Your task to perform on an android device: open app "Google Translate" (install if not already installed) Image 0: 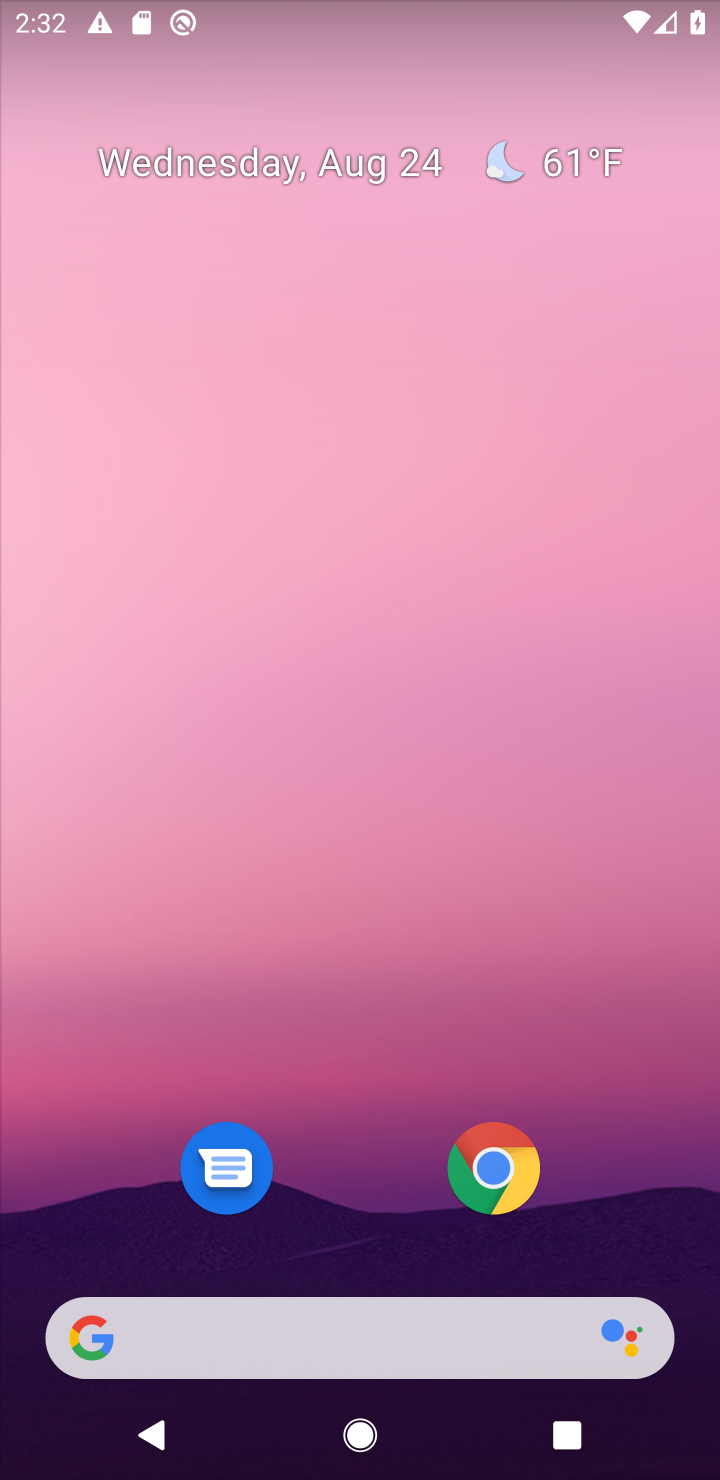
Step 0: drag from (697, 1224) to (691, 395)
Your task to perform on an android device: open app "Google Translate" (install if not already installed) Image 1: 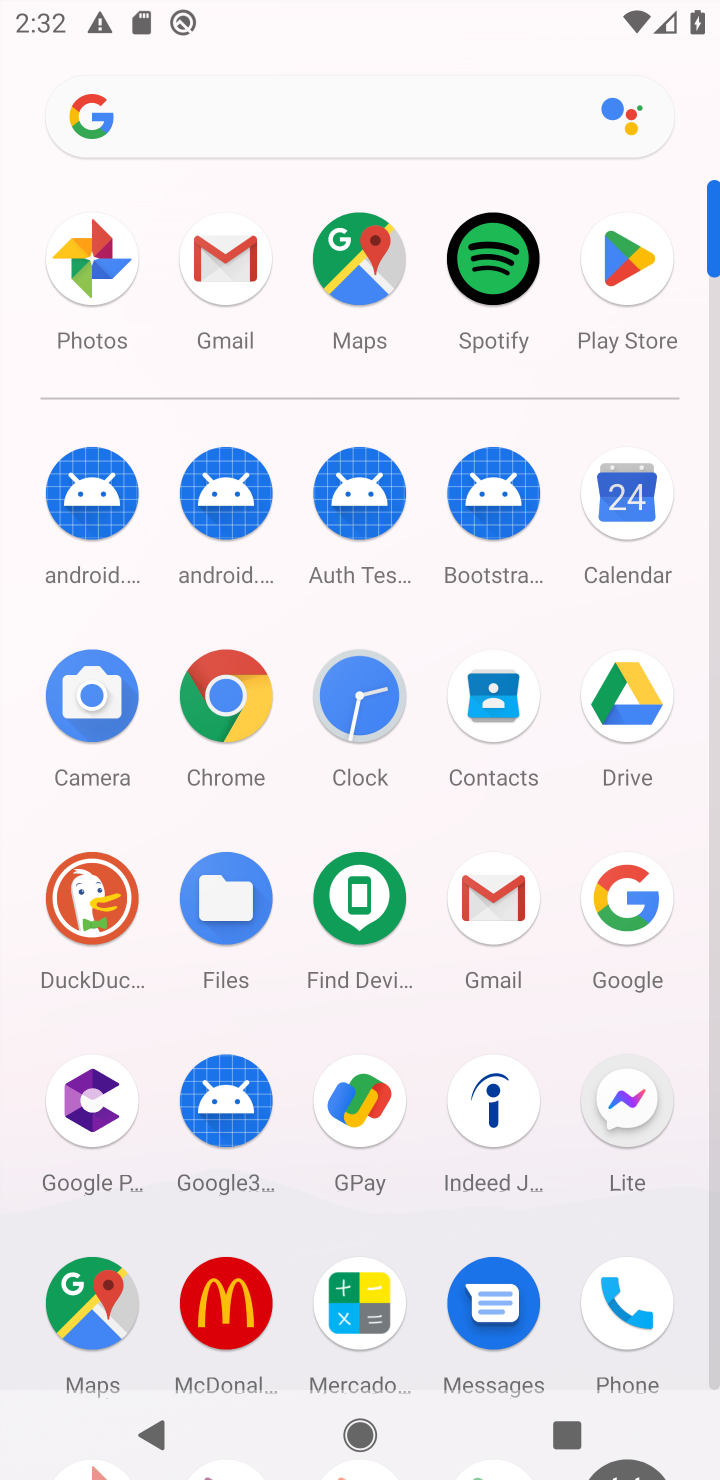
Step 1: click (715, 1354)
Your task to perform on an android device: open app "Google Translate" (install if not already installed) Image 2: 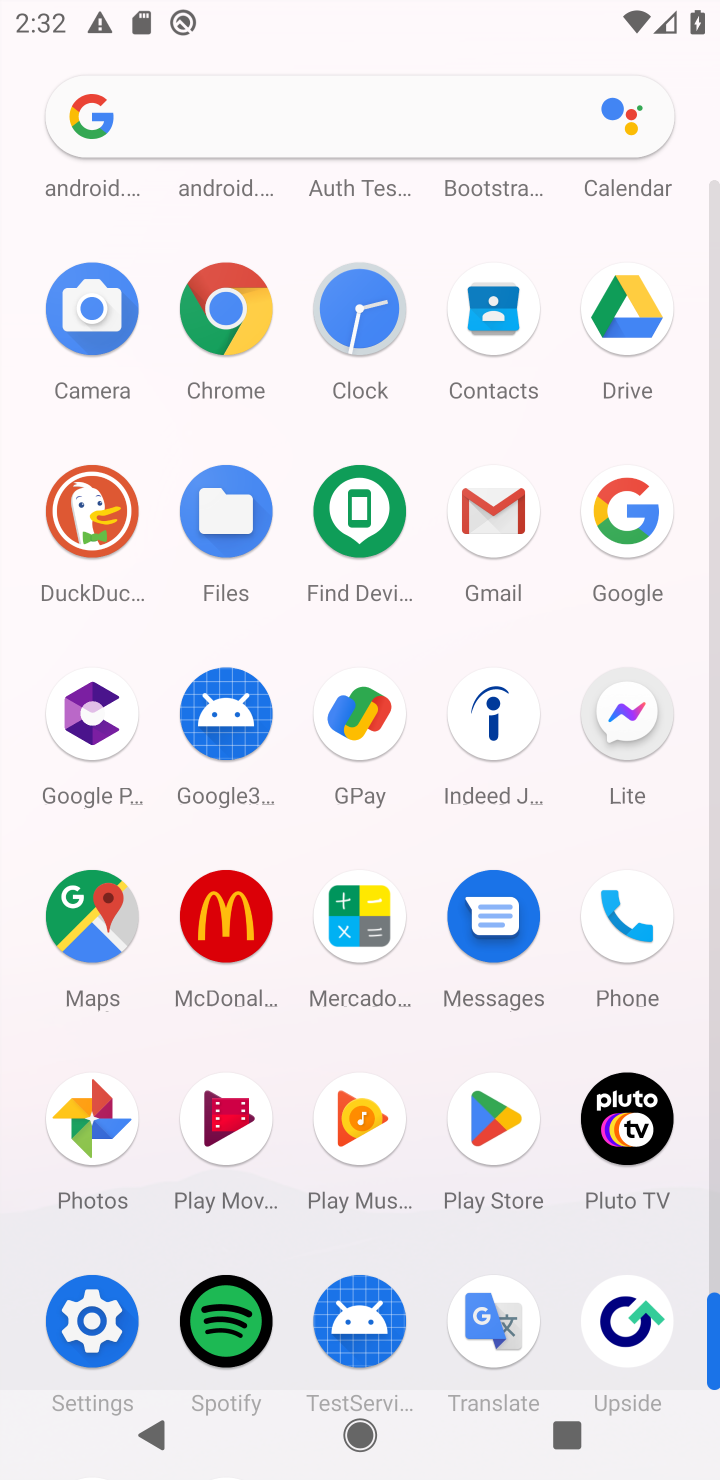
Step 2: click (498, 1119)
Your task to perform on an android device: open app "Google Translate" (install if not already installed) Image 3: 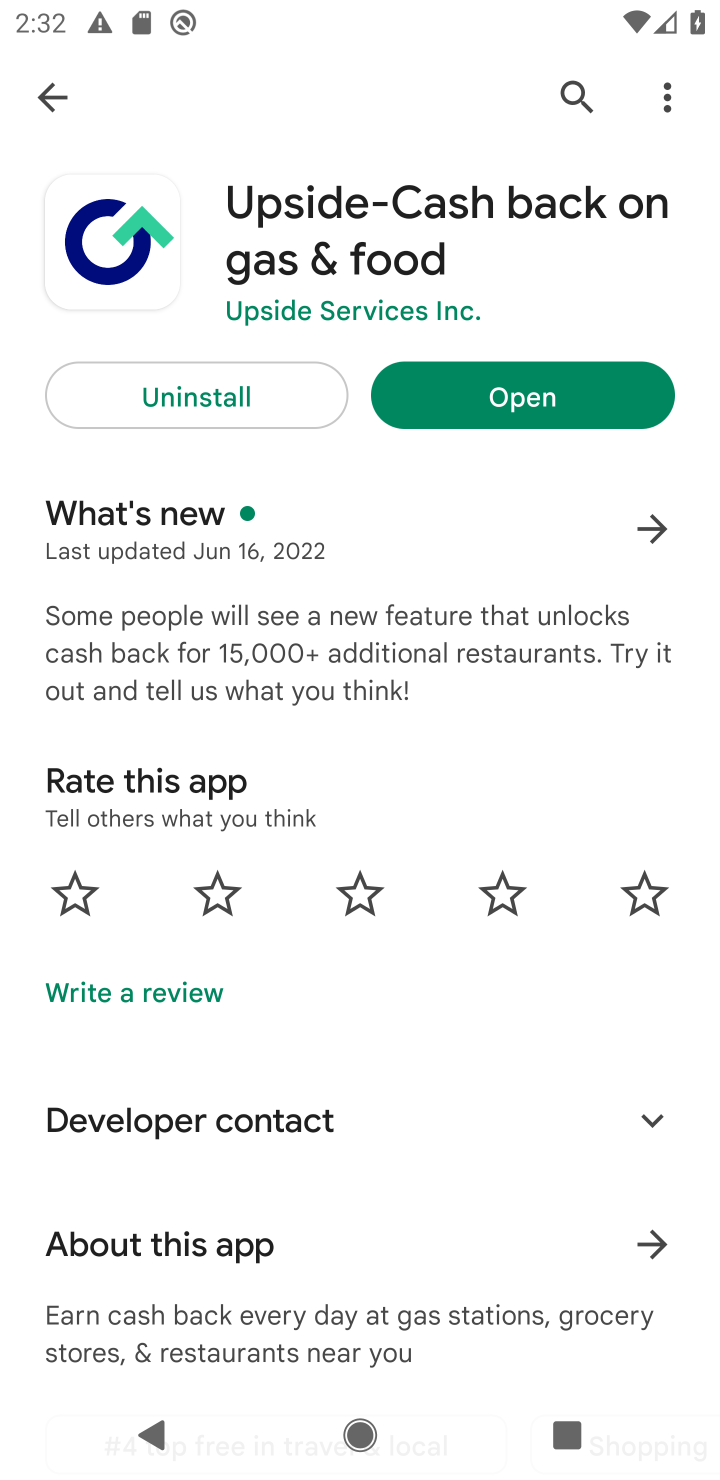
Step 3: click (569, 92)
Your task to perform on an android device: open app "Google Translate" (install if not already installed) Image 4: 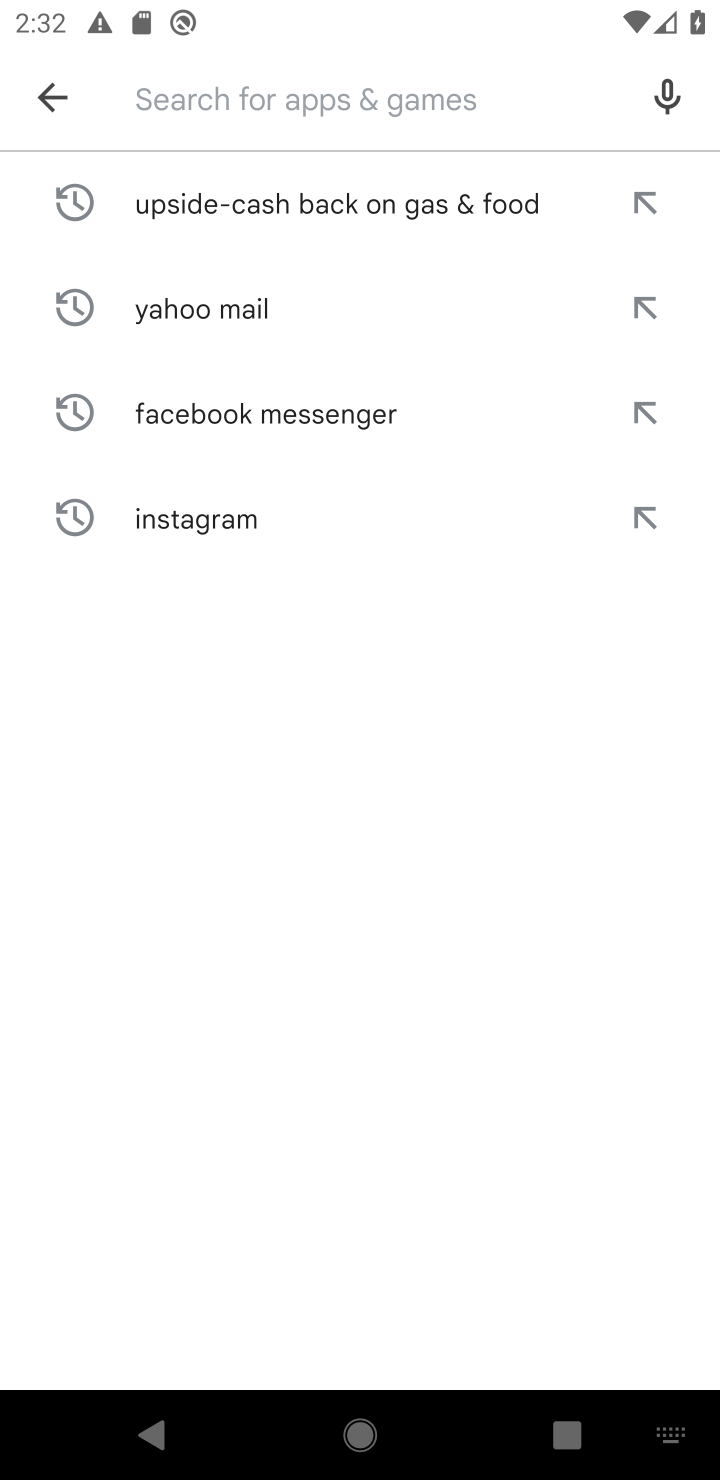
Step 4: type "Google Translate"
Your task to perform on an android device: open app "Google Translate" (install if not already installed) Image 5: 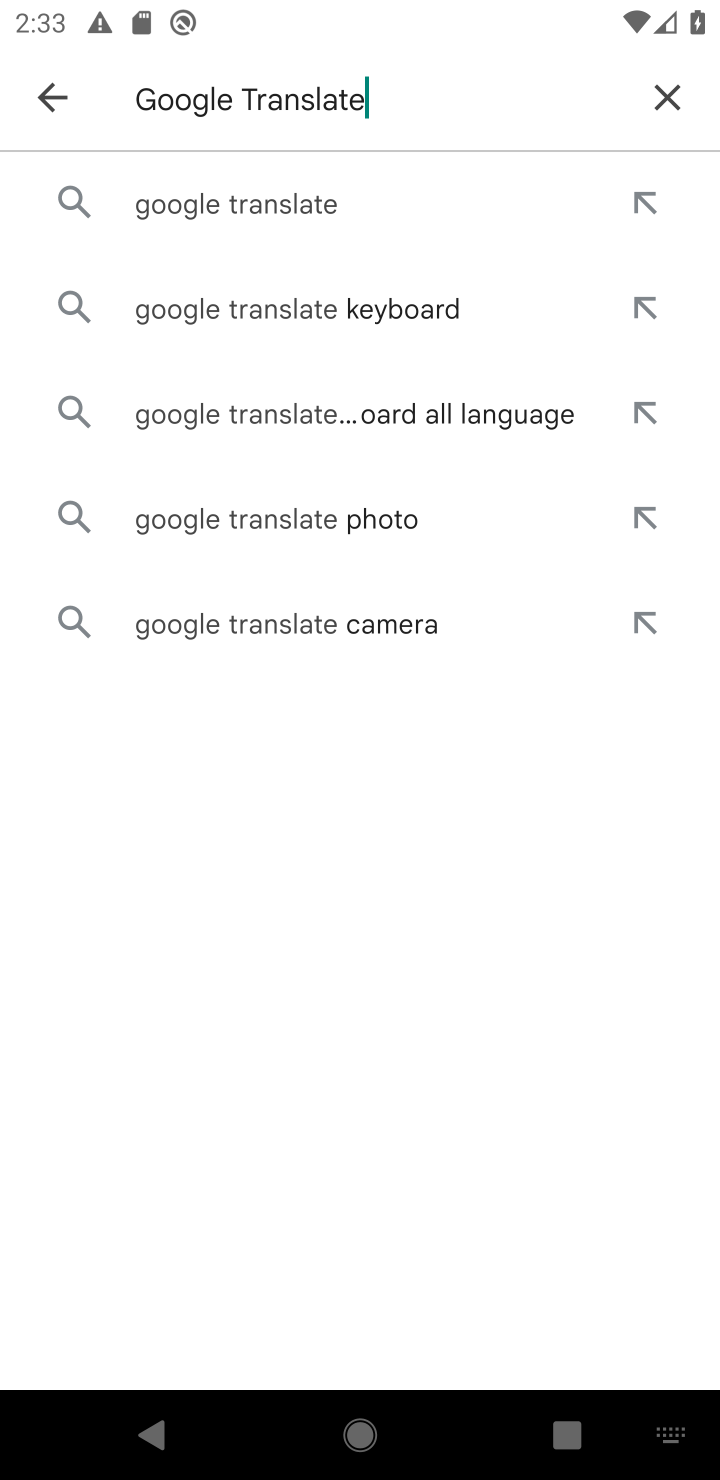
Step 5: click (231, 218)
Your task to perform on an android device: open app "Google Translate" (install if not already installed) Image 6: 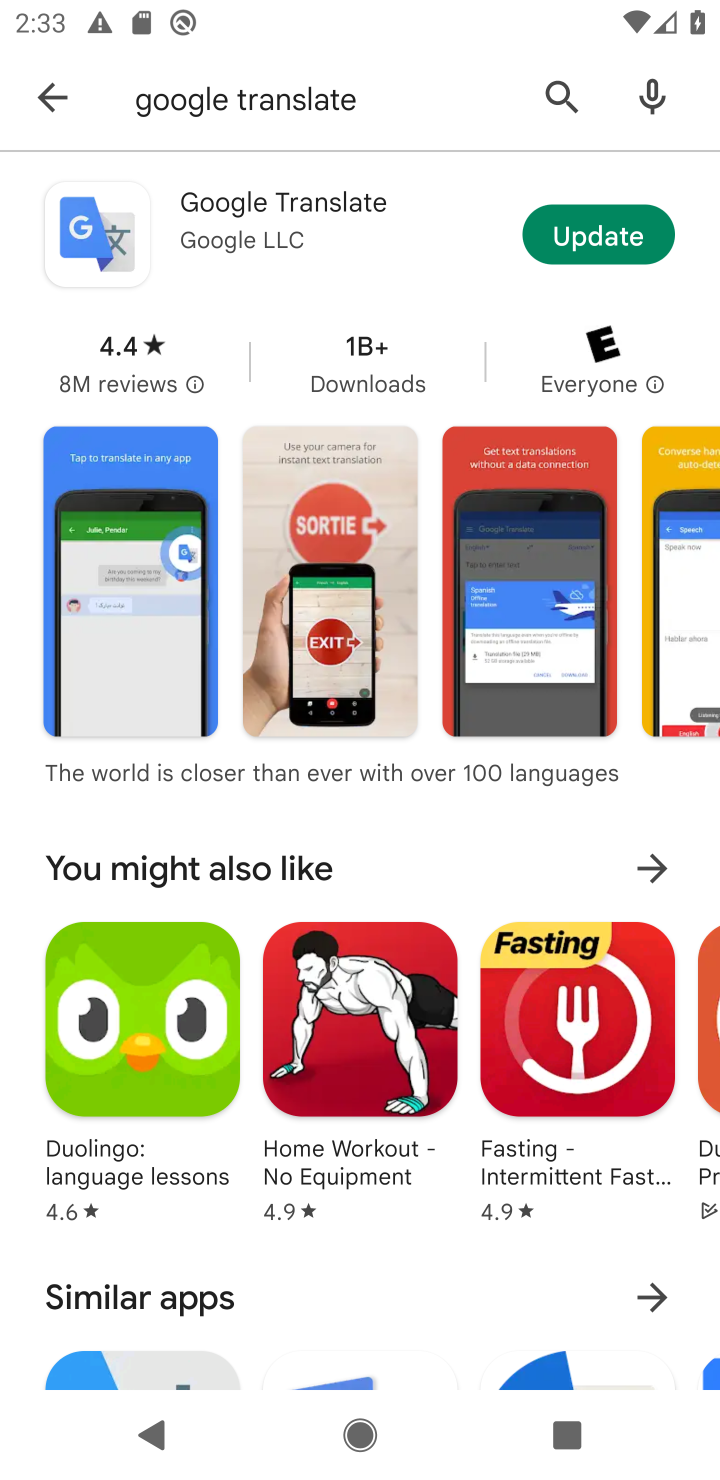
Step 6: click (595, 226)
Your task to perform on an android device: open app "Google Translate" (install if not already installed) Image 7: 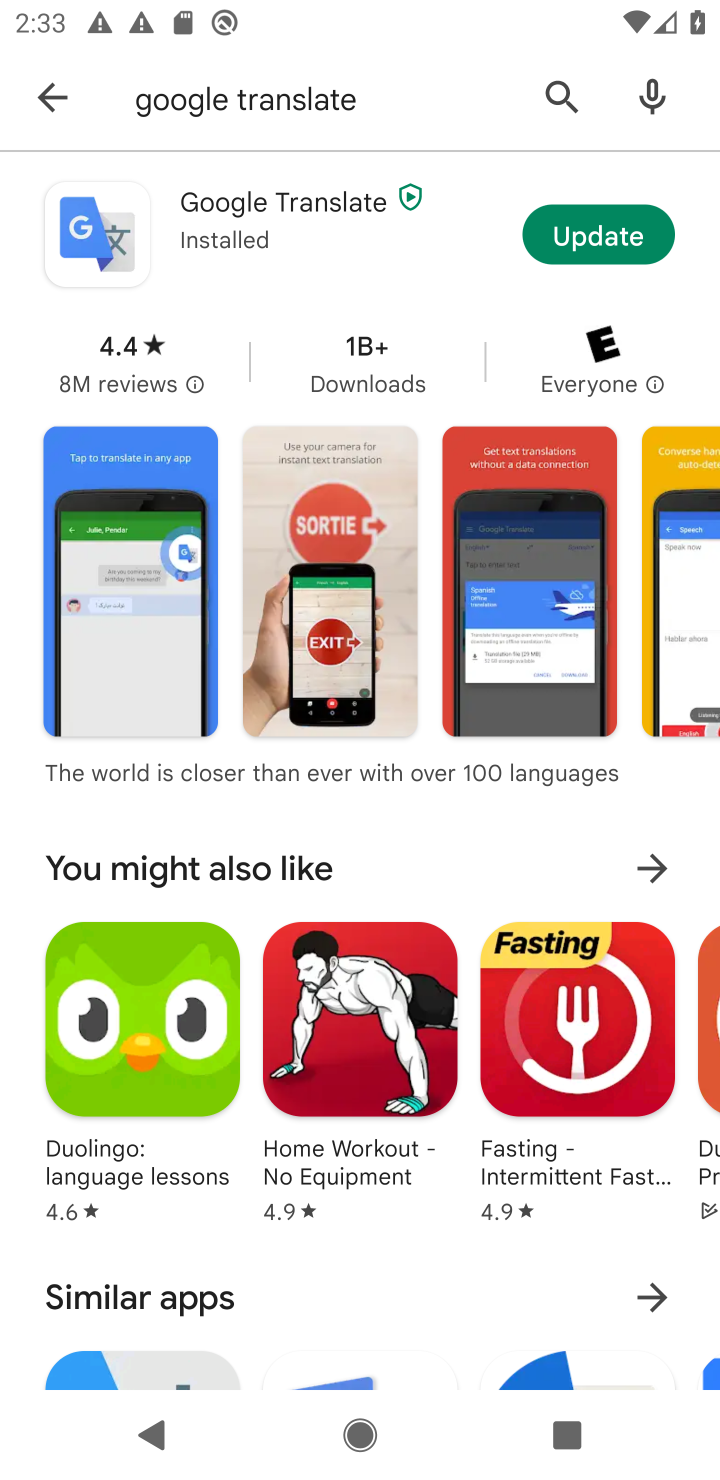
Step 7: click (590, 245)
Your task to perform on an android device: open app "Google Translate" (install if not already installed) Image 8: 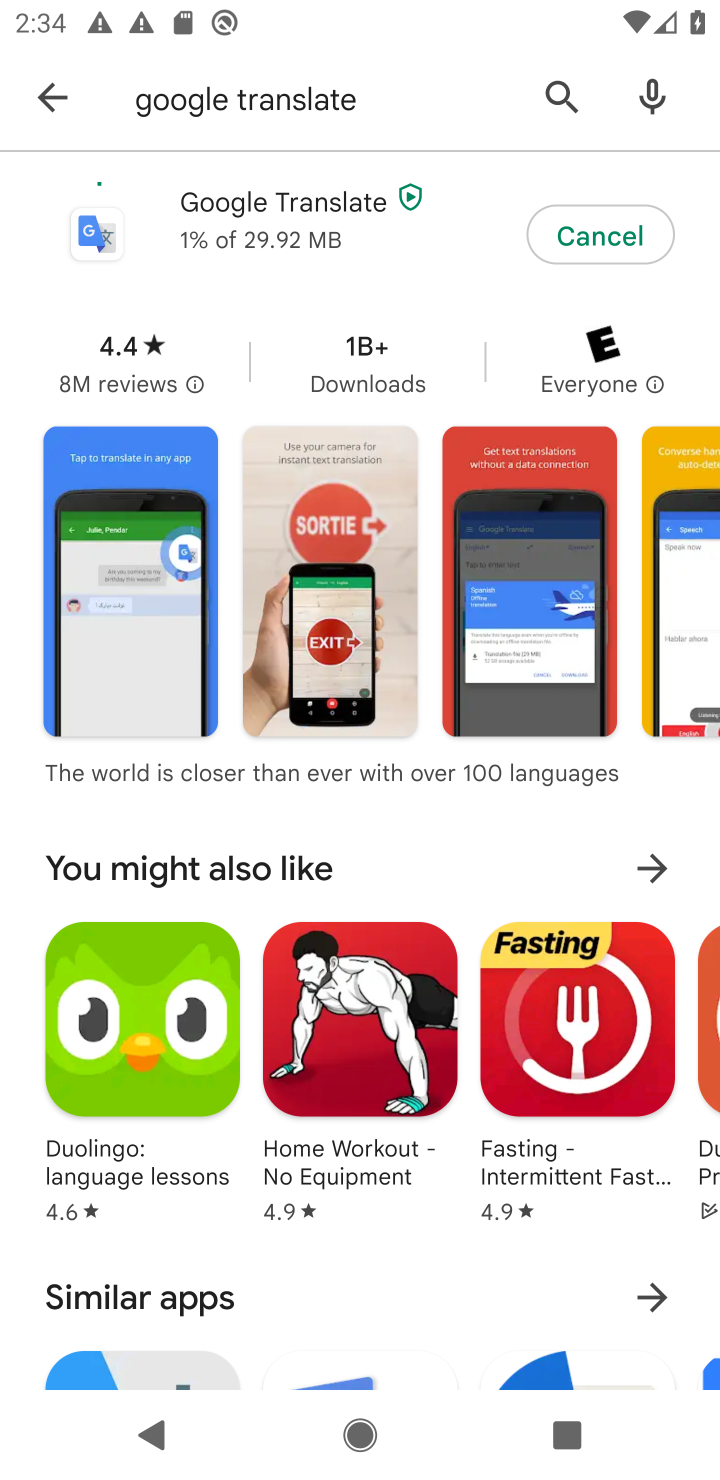
Step 8: click (161, 205)
Your task to perform on an android device: open app "Google Translate" (install if not already installed) Image 9: 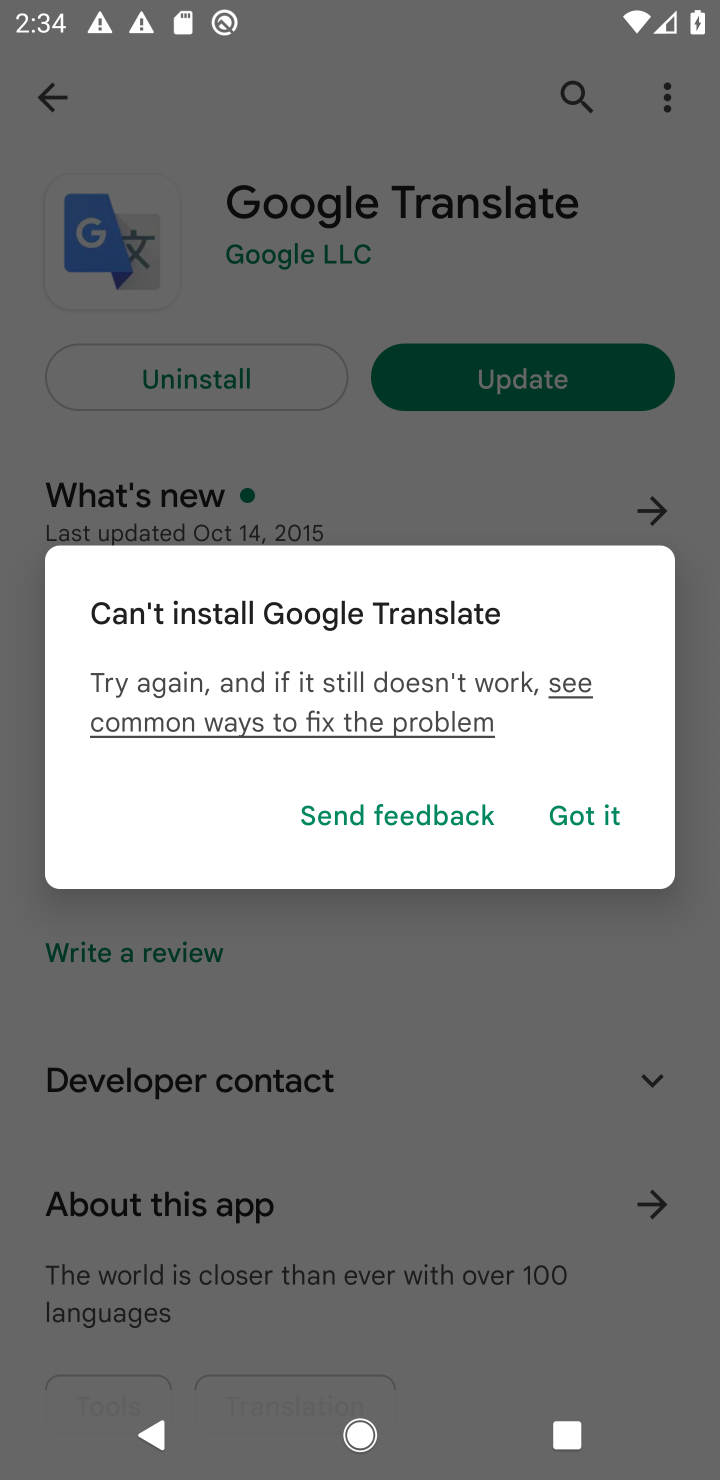
Step 9: click (567, 796)
Your task to perform on an android device: open app "Google Translate" (install if not already installed) Image 10: 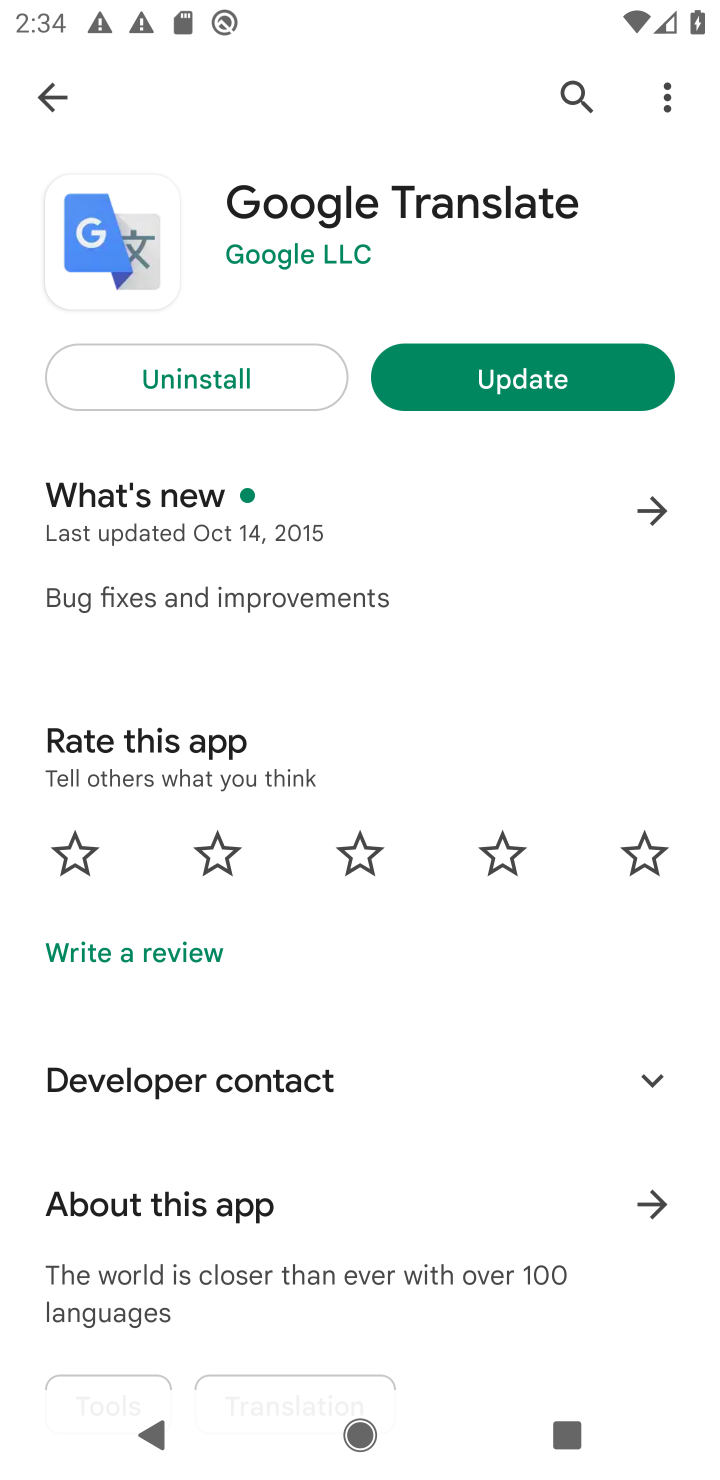
Step 10: task complete